Your task to perform on an android device: turn off location Image 0: 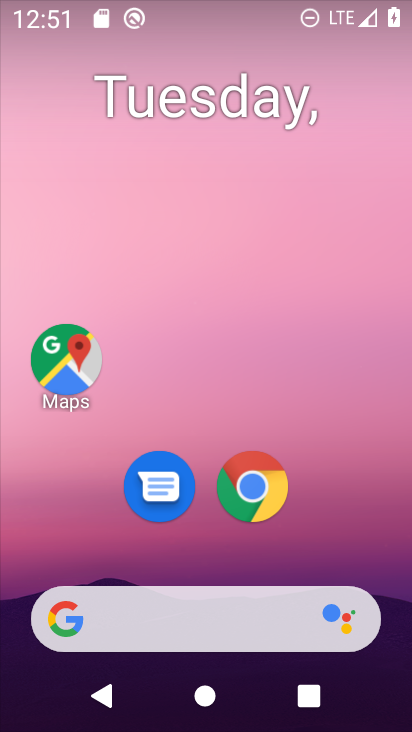
Step 0: drag from (221, 555) to (213, 200)
Your task to perform on an android device: turn off location Image 1: 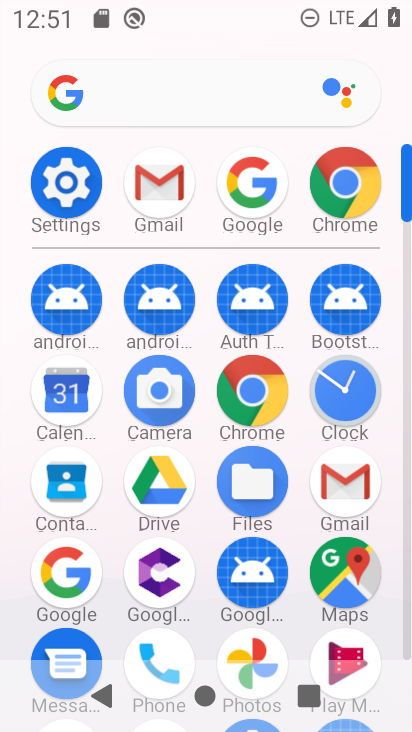
Step 1: drag from (111, 228) to (116, 0)
Your task to perform on an android device: turn off location Image 2: 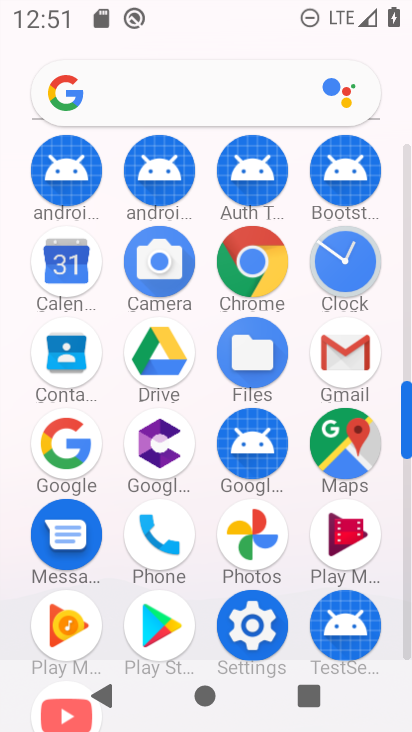
Step 2: click (260, 627)
Your task to perform on an android device: turn off location Image 3: 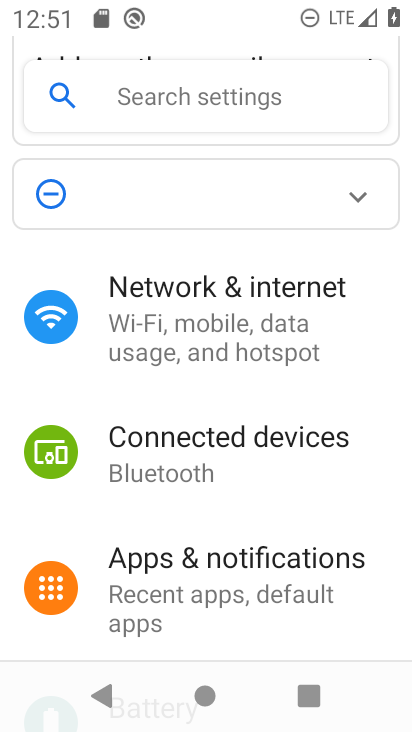
Step 3: drag from (175, 530) to (231, 169)
Your task to perform on an android device: turn off location Image 4: 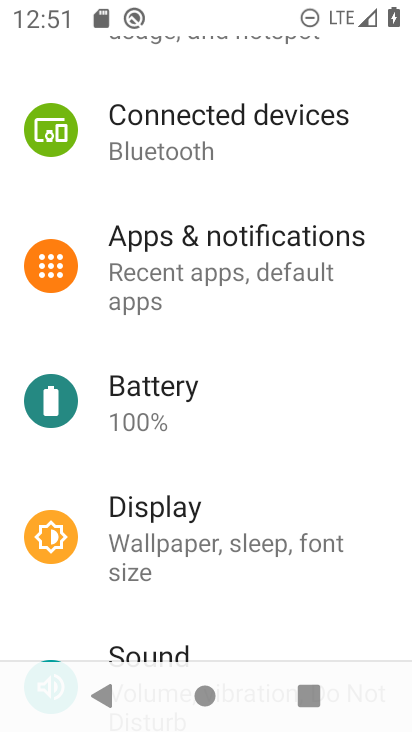
Step 4: drag from (212, 530) to (261, 210)
Your task to perform on an android device: turn off location Image 5: 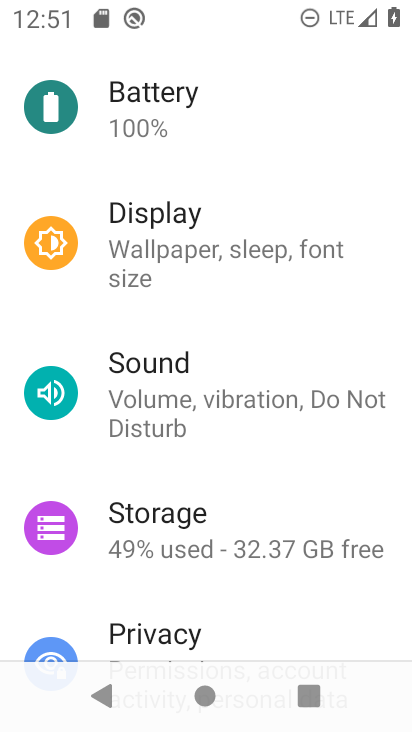
Step 5: drag from (221, 577) to (220, 208)
Your task to perform on an android device: turn off location Image 6: 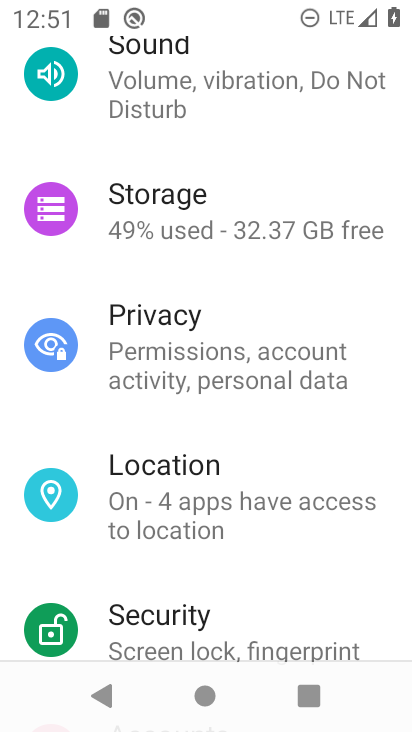
Step 6: click (221, 491)
Your task to perform on an android device: turn off location Image 7: 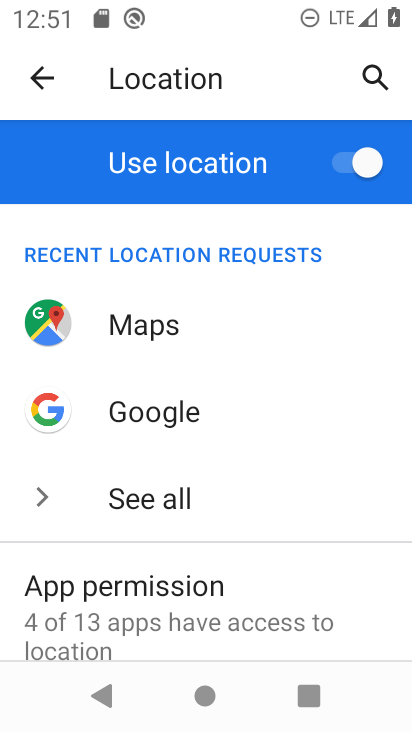
Step 7: click (356, 182)
Your task to perform on an android device: turn off location Image 8: 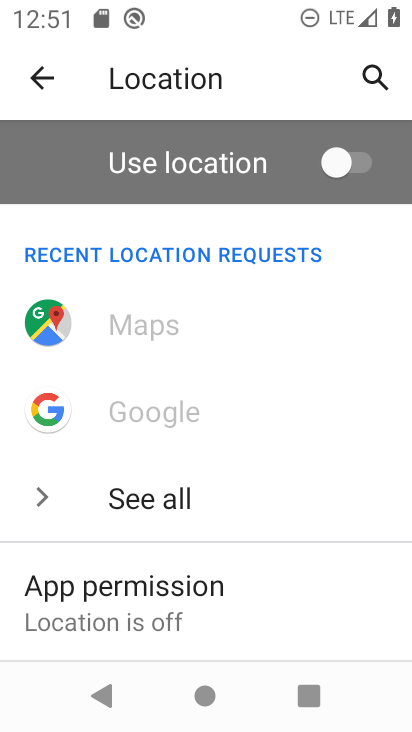
Step 8: task complete